Your task to perform on an android device: all mails in gmail Image 0: 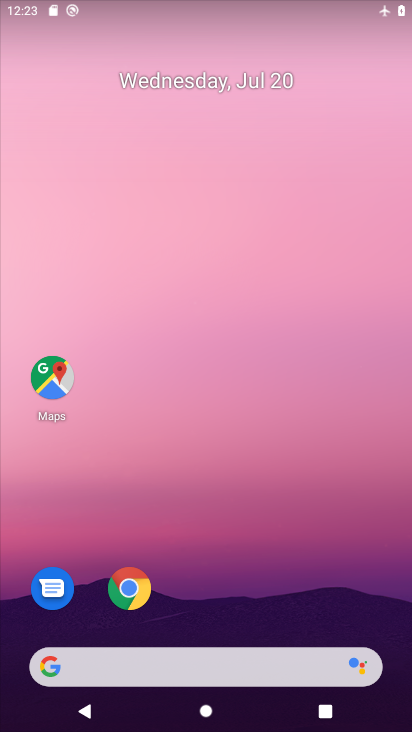
Step 0: drag from (284, 591) to (282, 149)
Your task to perform on an android device: all mails in gmail Image 1: 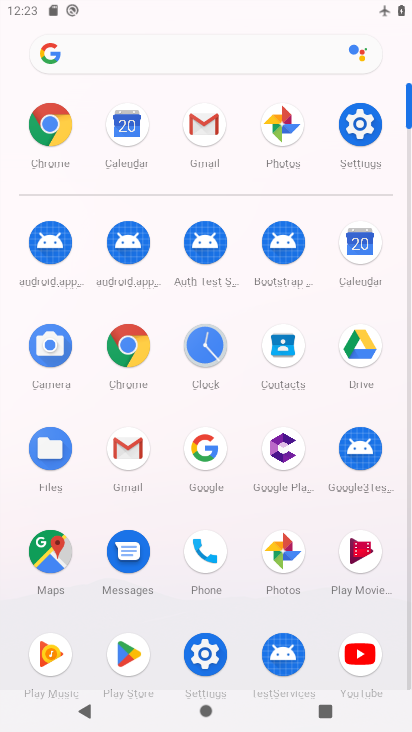
Step 1: click (193, 105)
Your task to perform on an android device: all mails in gmail Image 2: 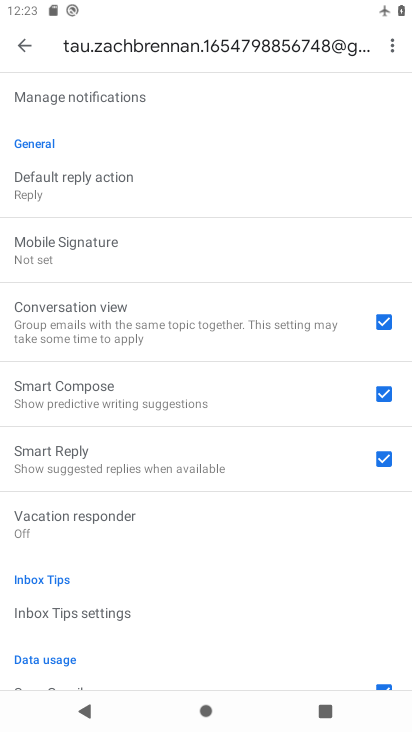
Step 2: click (27, 48)
Your task to perform on an android device: all mails in gmail Image 3: 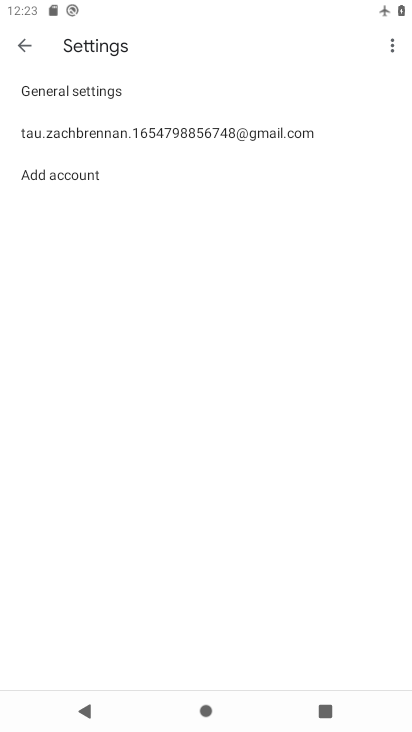
Step 3: click (27, 48)
Your task to perform on an android device: all mails in gmail Image 4: 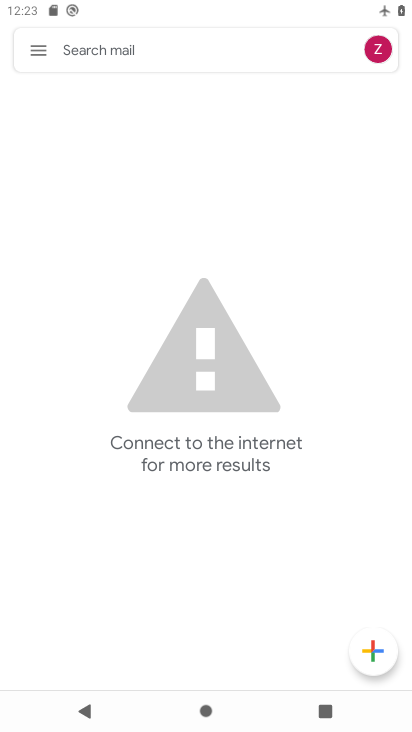
Step 4: click (37, 50)
Your task to perform on an android device: all mails in gmail Image 5: 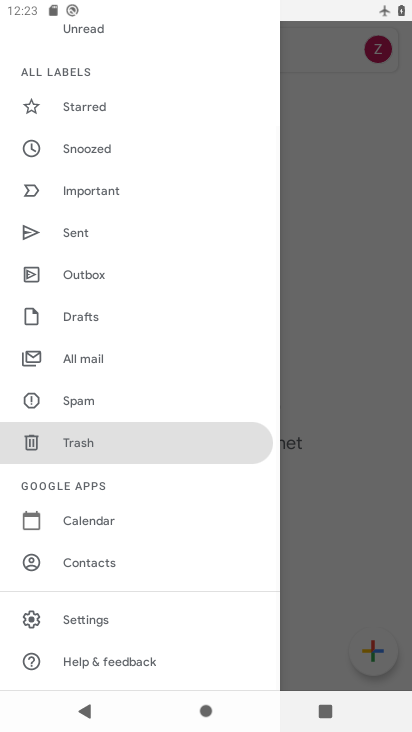
Step 5: click (85, 357)
Your task to perform on an android device: all mails in gmail Image 6: 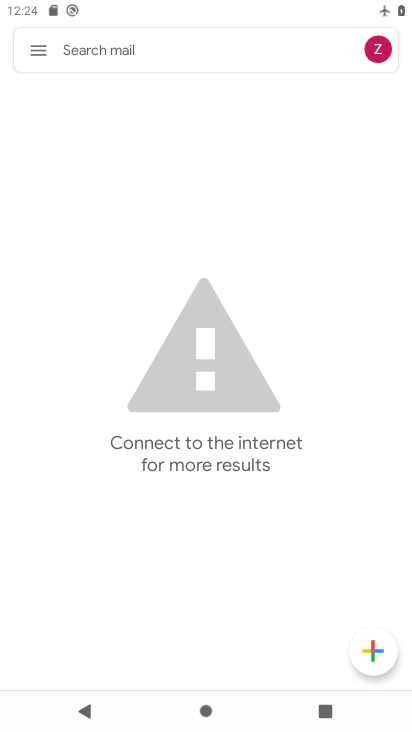
Step 6: task complete